Your task to perform on an android device: toggle javascript in the chrome app Image 0: 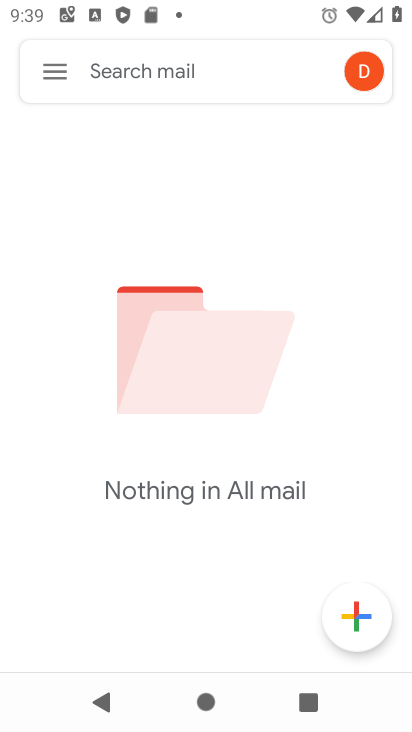
Step 0: press back button
Your task to perform on an android device: toggle javascript in the chrome app Image 1: 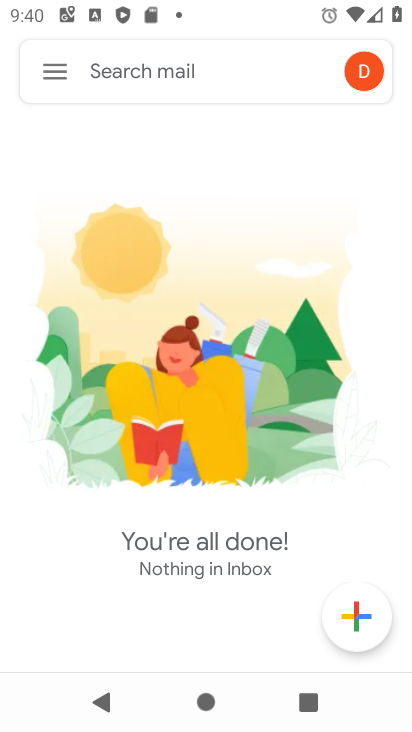
Step 1: click (44, 69)
Your task to perform on an android device: toggle javascript in the chrome app Image 2: 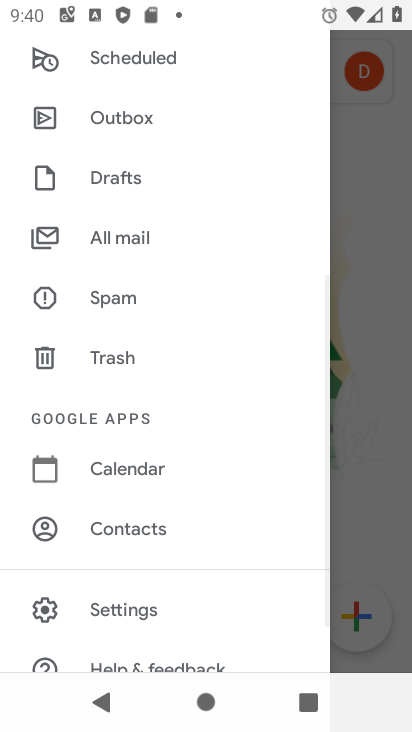
Step 2: click (139, 601)
Your task to perform on an android device: toggle javascript in the chrome app Image 3: 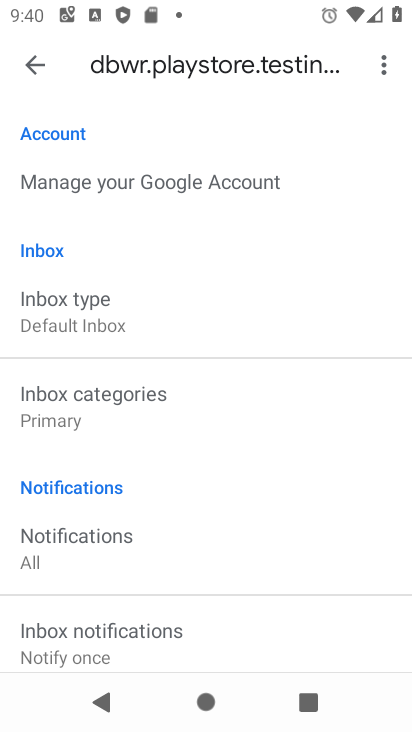
Step 3: drag from (217, 567) to (254, 131)
Your task to perform on an android device: toggle javascript in the chrome app Image 4: 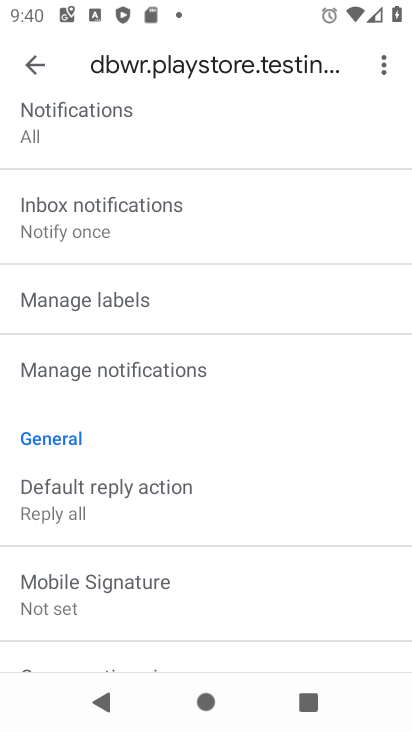
Step 4: drag from (203, 554) to (259, 115)
Your task to perform on an android device: toggle javascript in the chrome app Image 5: 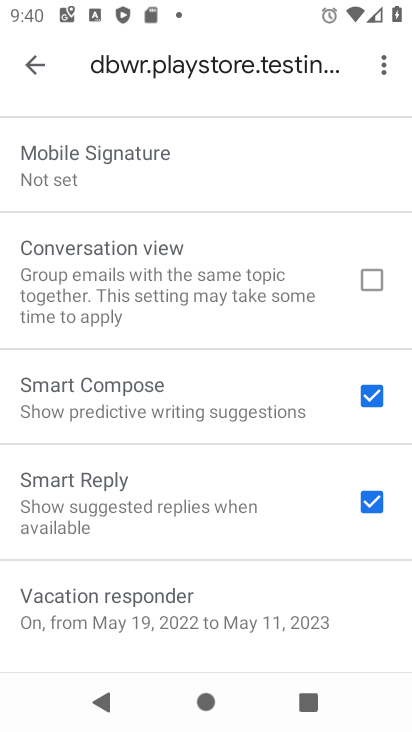
Step 5: drag from (207, 593) to (223, 159)
Your task to perform on an android device: toggle javascript in the chrome app Image 6: 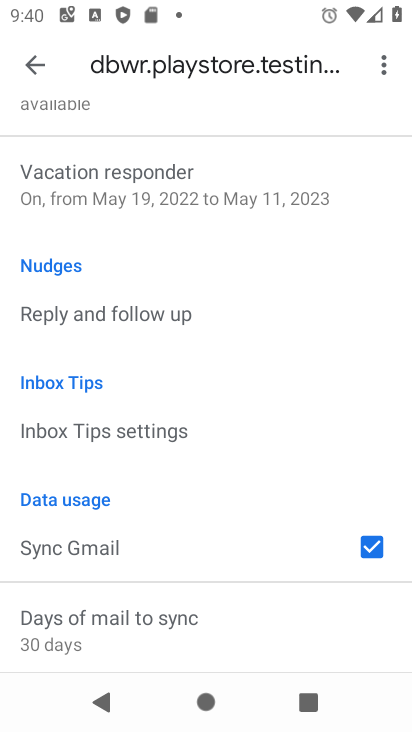
Step 6: drag from (201, 593) to (248, 122)
Your task to perform on an android device: toggle javascript in the chrome app Image 7: 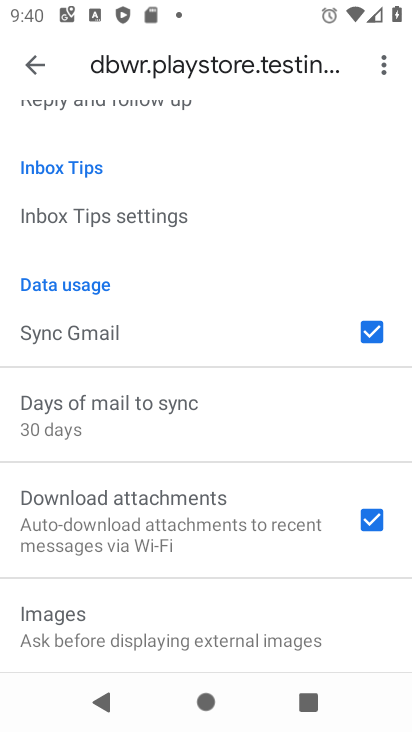
Step 7: drag from (184, 182) to (183, 634)
Your task to perform on an android device: toggle javascript in the chrome app Image 8: 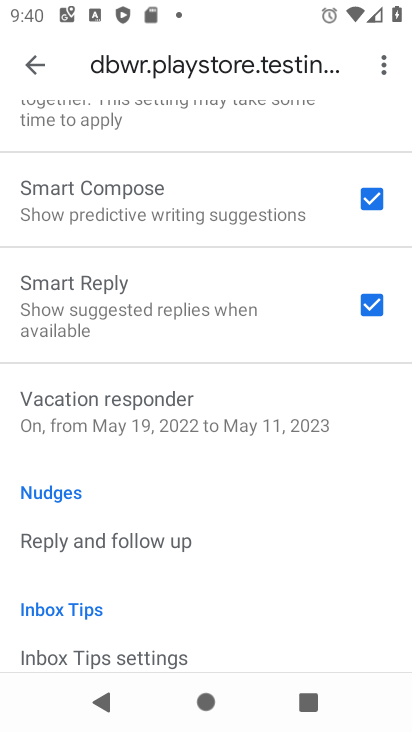
Step 8: drag from (188, 207) to (201, 670)
Your task to perform on an android device: toggle javascript in the chrome app Image 9: 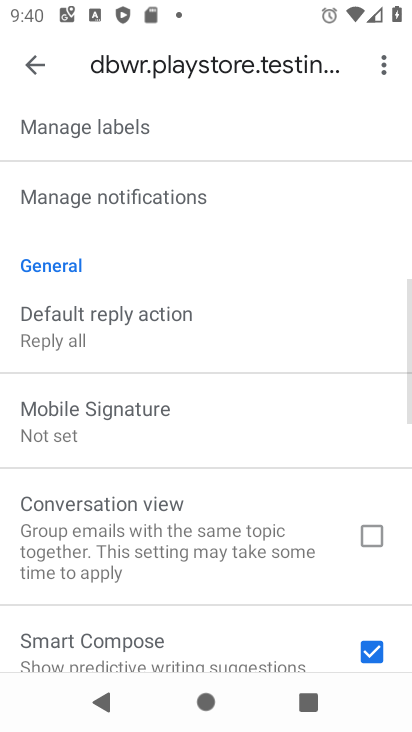
Step 9: drag from (227, 259) to (218, 683)
Your task to perform on an android device: toggle javascript in the chrome app Image 10: 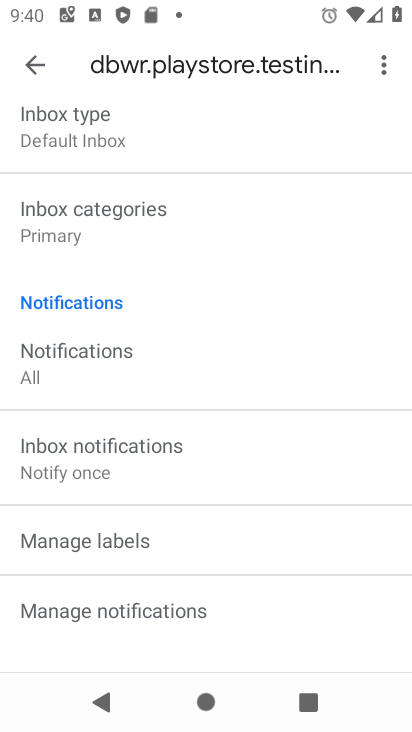
Step 10: drag from (187, 196) to (188, 680)
Your task to perform on an android device: toggle javascript in the chrome app Image 11: 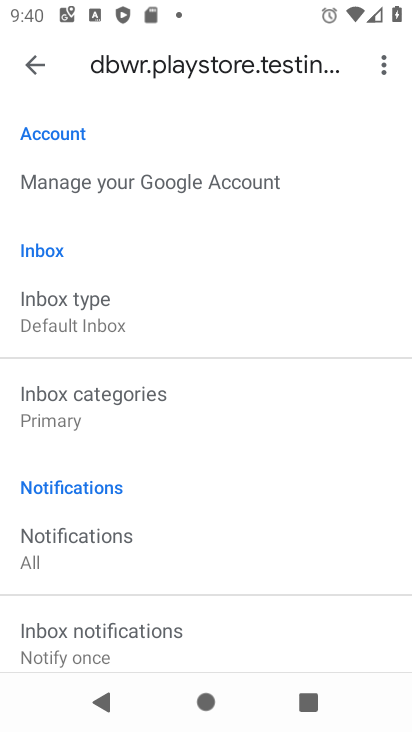
Step 11: drag from (233, 586) to (242, 167)
Your task to perform on an android device: toggle javascript in the chrome app Image 12: 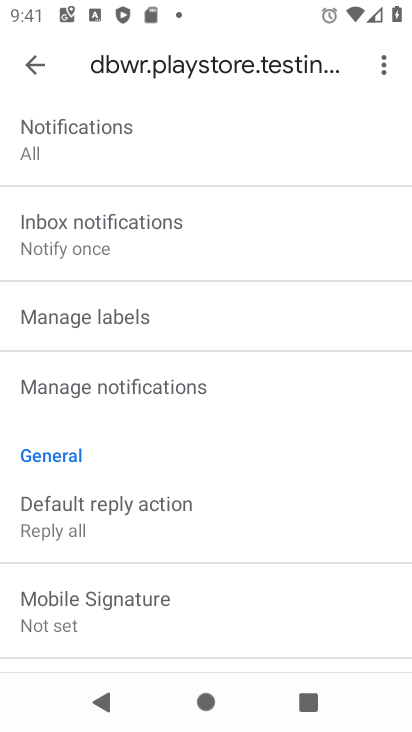
Step 12: drag from (198, 253) to (200, 495)
Your task to perform on an android device: toggle javascript in the chrome app Image 13: 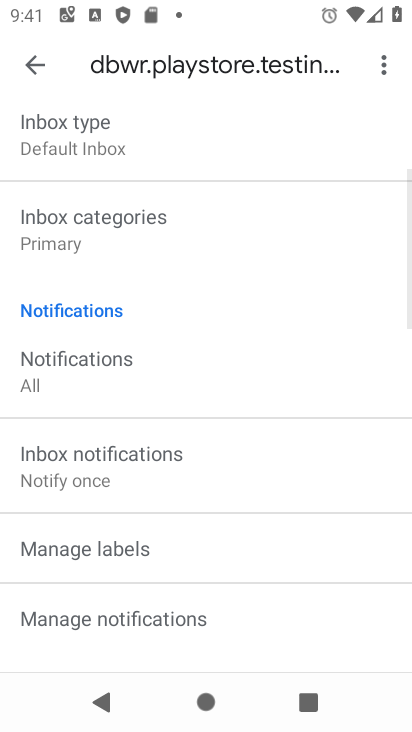
Step 13: press back button
Your task to perform on an android device: toggle javascript in the chrome app Image 14: 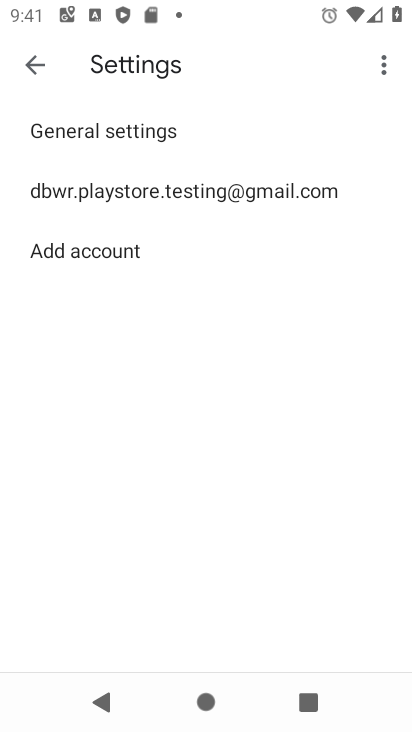
Step 14: press home button
Your task to perform on an android device: toggle javascript in the chrome app Image 15: 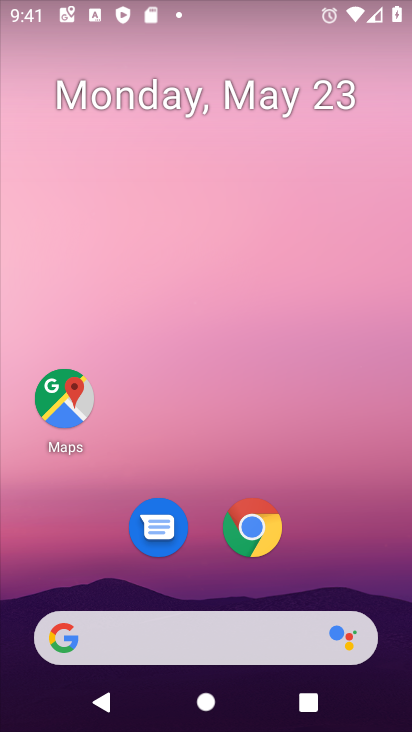
Step 15: drag from (353, 560) to (293, 19)
Your task to perform on an android device: toggle javascript in the chrome app Image 16: 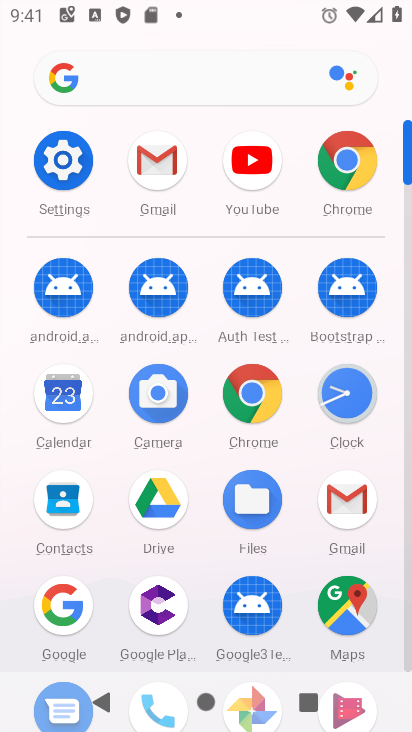
Step 16: click (251, 391)
Your task to perform on an android device: toggle javascript in the chrome app Image 17: 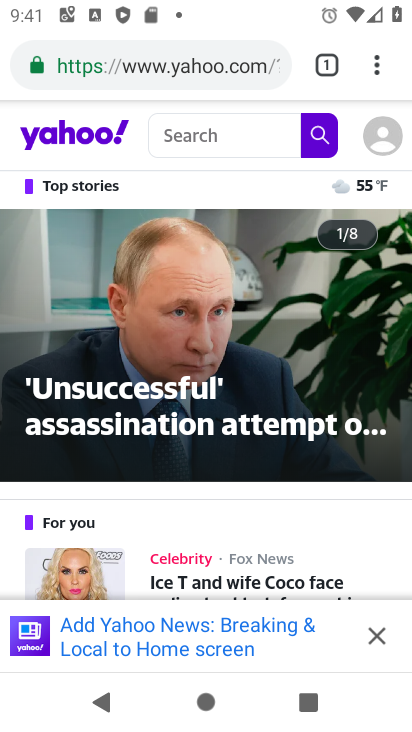
Step 17: drag from (374, 63) to (152, 573)
Your task to perform on an android device: toggle javascript in the chrome app Image 18: 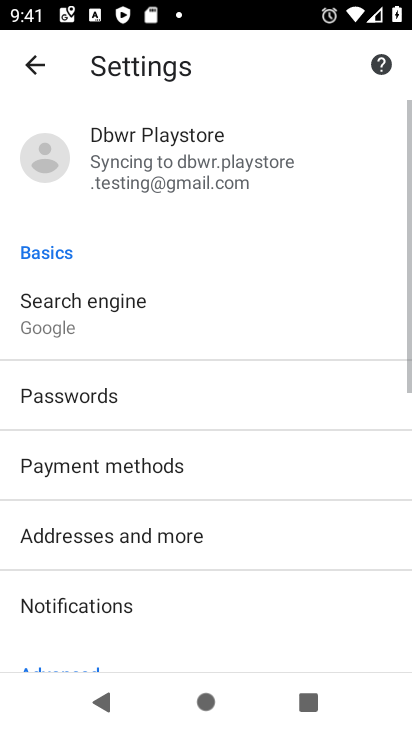
Step 18: drag from (247, 534) to (280, 155)
Your task to perform on an android device: toggle javascript in the chrome app Image 19: 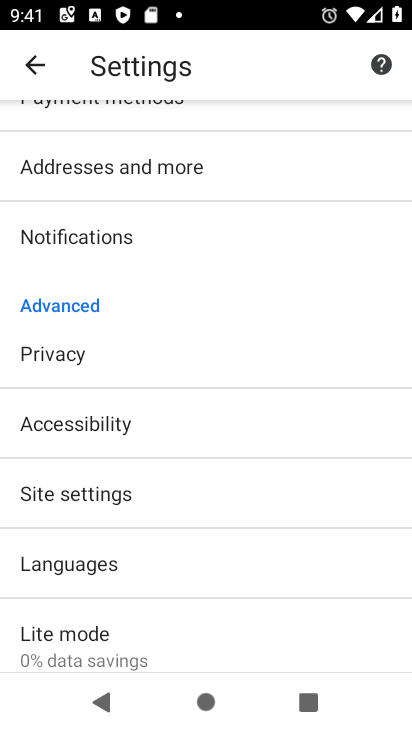
Step 19: drag from (252, 576) to (255, 149)
Your task to perform on an android device: toggle javascript in the chrome app Image 20: 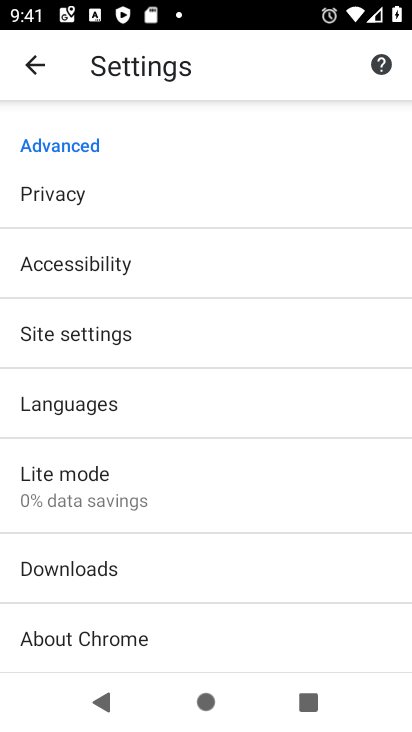
Step 20: drag from (153, 578) to (216, 187)
Your task to perform on an android device: toggle javascript in the chrome app Image 21: 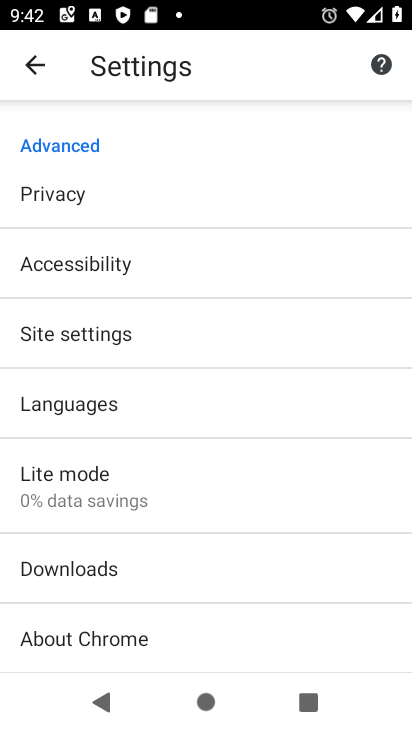
Step 21: click (133, 335)
Your task to perform on an android device: toggle javascript in the chrome app Image 22: 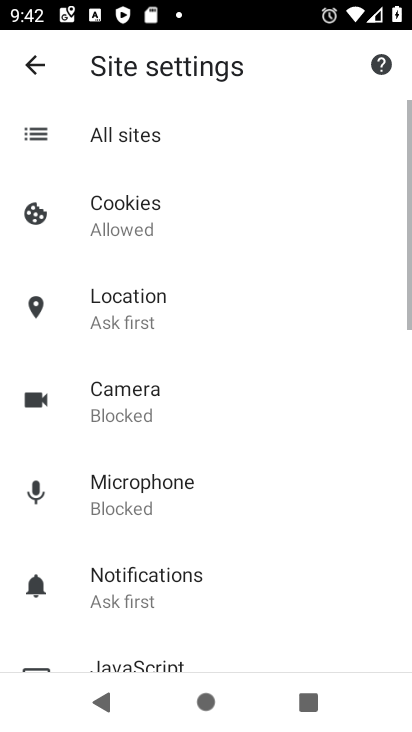
Step 22: drag from (263, 614) to (269, 182)
Your task to perform on an android device: toggle javascript in the chrome app Image 23: 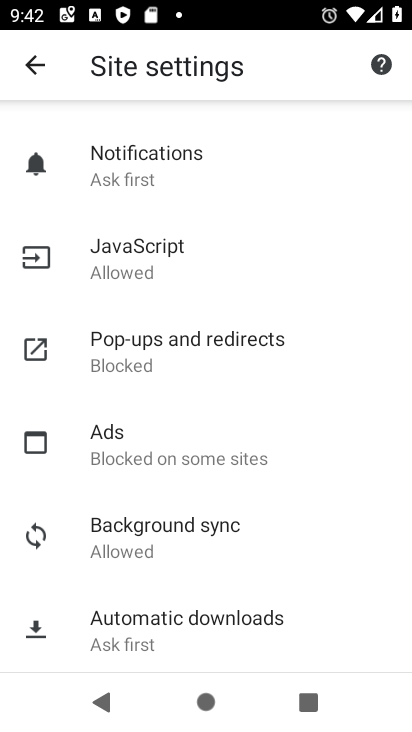
Step 23: drag from (248, 575) to (248, 143)
Your task to perform on an android device: toggle javascript in the chrome app Image 24: 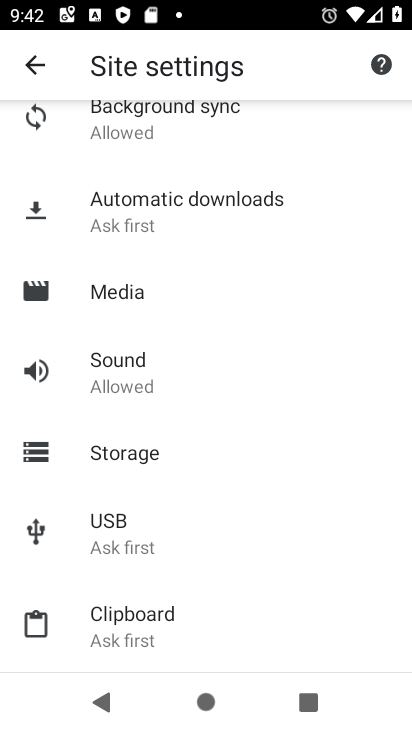
Step 24: drag from (254, 578) to (272, 197)
Your task to perform on an android device: toggle javascript in the chrome app Image 25: 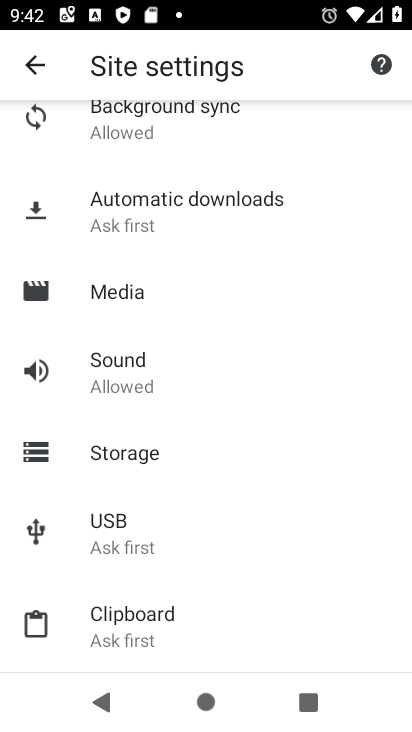
Step 25: drag from (260, 254) to (256, 643)
Your task to perform on an android device: toggle javascript in the chrome app Image 26: 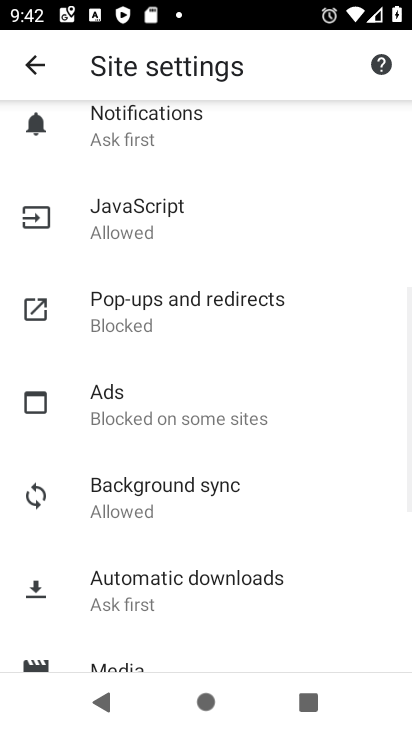
Step 26: drag from (285, 203) to (285, 607)
Your task to perform on an android device: toggle javascript in the chrome app Image 27: 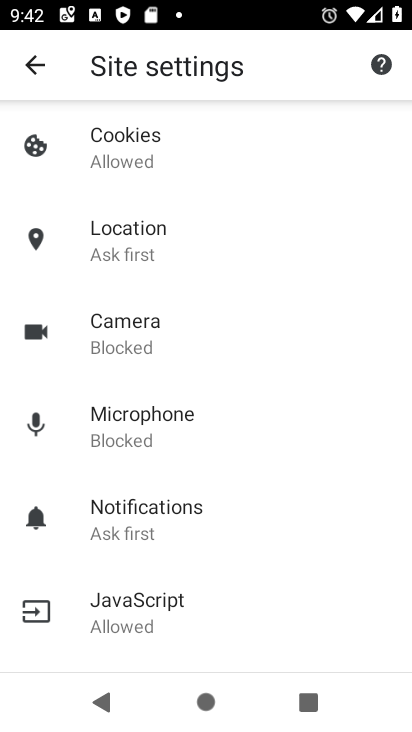
Step 27: drag from (227, 218) to (236, 618)
Your task to perform on an android device: toggle javascript in the chrome app Image 28: 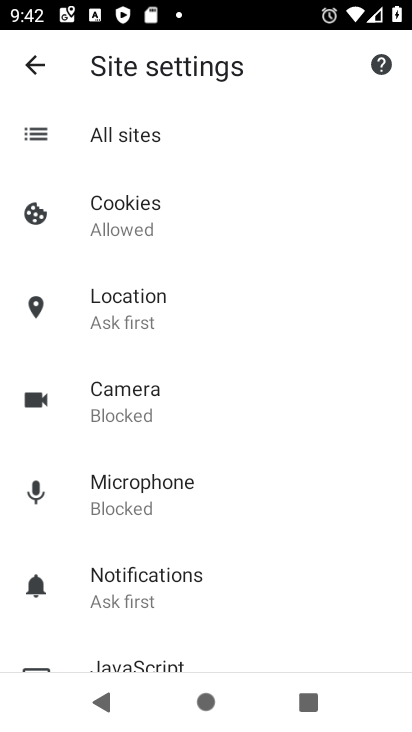
Step 28: drag from (262, 600) to (272, 121)
Your task to perform on an android device: toggle javascript in the chrome app Image 29: 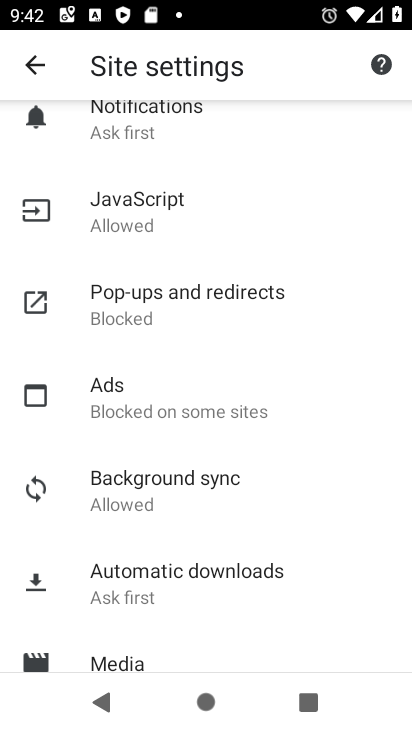
Step 29: drag from (273, 132) to (273, 368)
Your task to perform on an android device: toggle javascript in the chrome app Image 30: 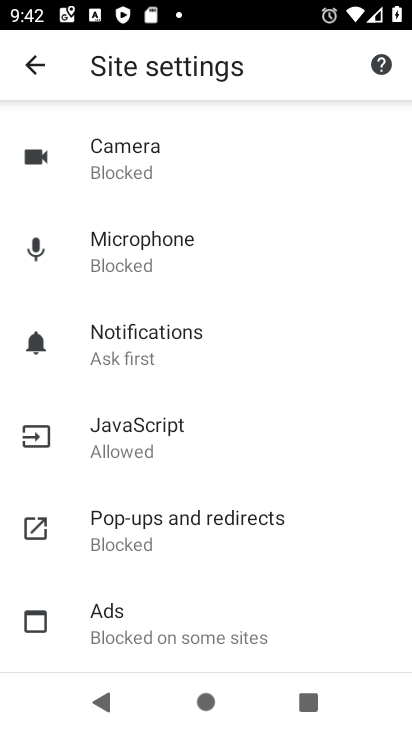
Step 30: drag from (264, 186) to (278, 639)
Your task to perform on an android device: toggle javascript in the chrome app Image 31: 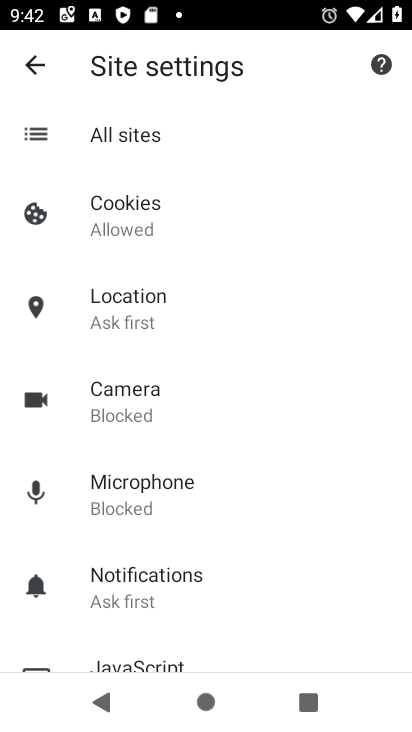
Step 31: drag from (244, 554) to (237, 166)
Your task to perform on an android device: toggle javascript in the chrome app Image 32: 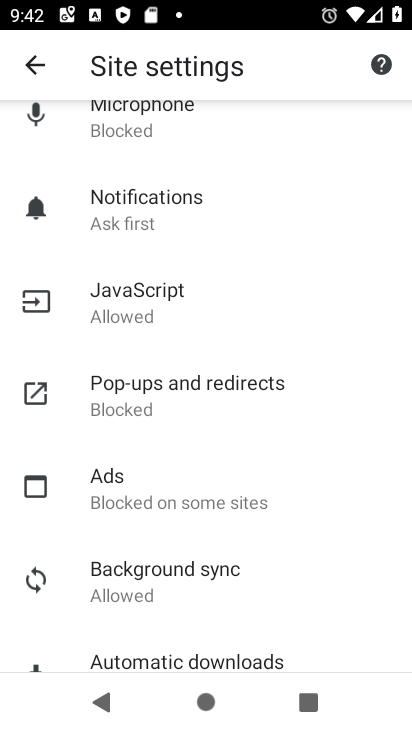
Step 32: click (182, 287)
Your task to perform on an android device: toggle javascript in the chrome app Image 33: 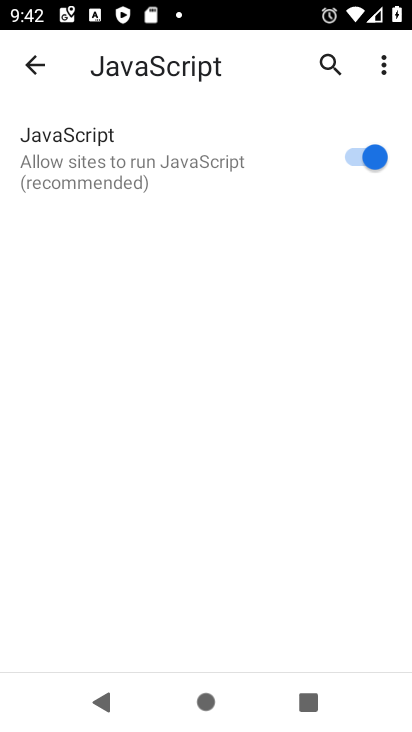
Step 33: click (354, 154)
Your task to perform on an android device: toggle javascript in the chrome app Image 34: 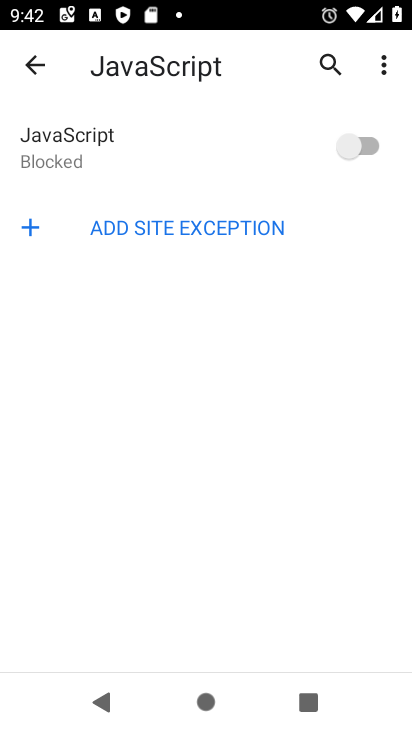
Step 34: task complete